Your task to perform on an android device: Go to Yahoo.com Image 0: 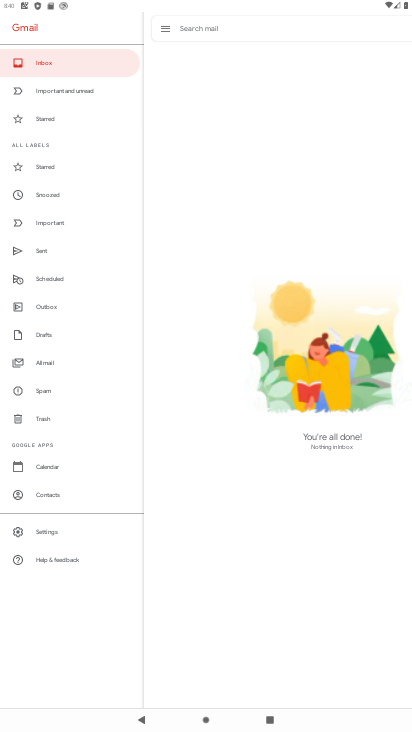
Step 0: press home button
Your task to perform on an android device: Go to Yahoo.com Image 1: 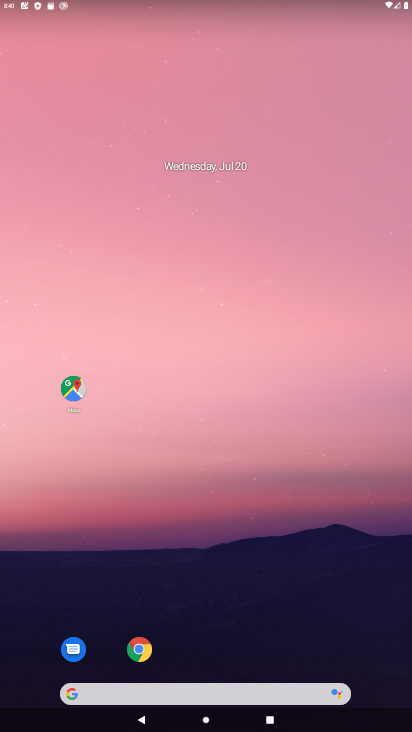
Step 1: click (217, 700)
Your task to perform on an android device: Go to Yahoo.com Image 2: 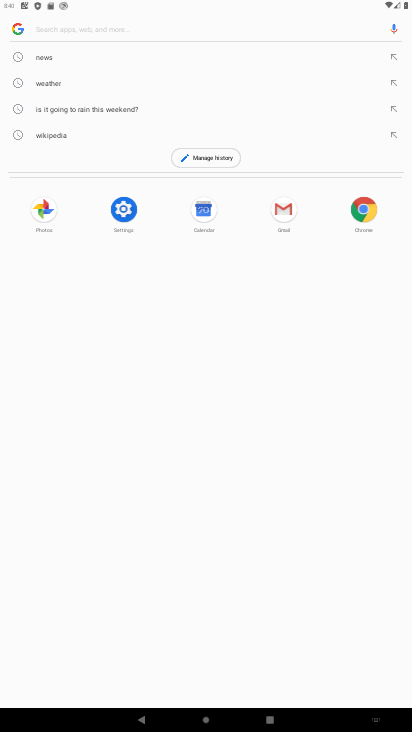
Step 2: type "yahoo.com"
Your task to perform on an android device: Go to Yahoo.com Image 3: 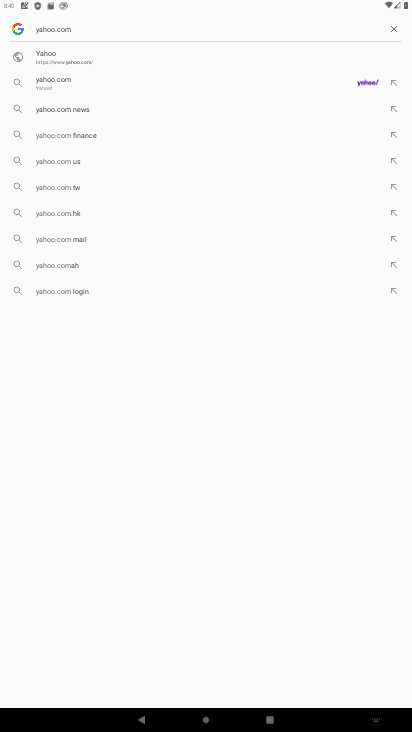
Step 3: click (66, 50)
Your task to perform on an android device: Go to Yahoo.com Image 4: 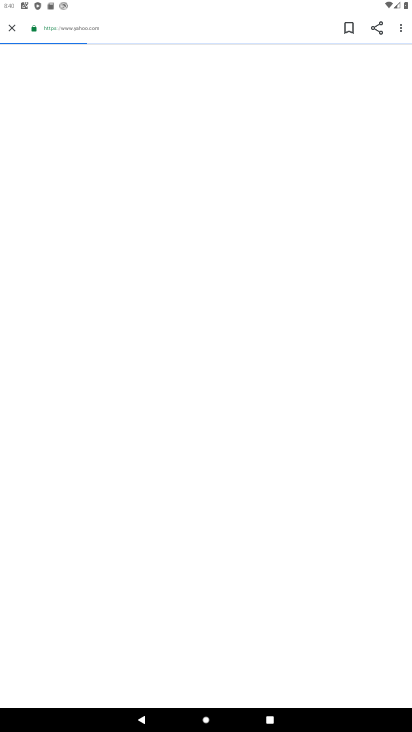
Step 4: task complete